Your task to perform on an android device: turn on priority inbox in the gmail app Image 0: 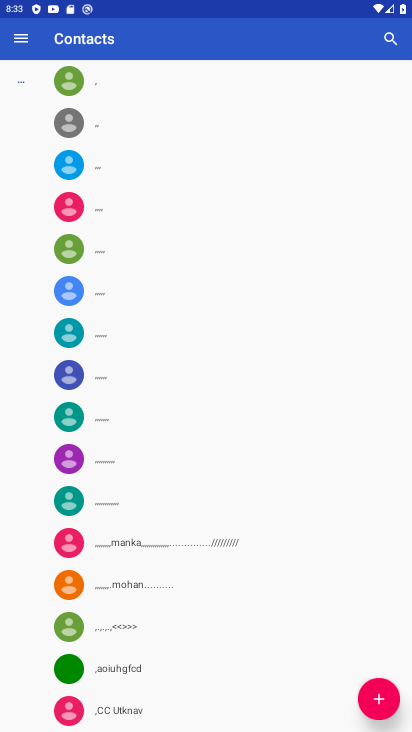
Step 0: press back button
Your task to perform on an android device: turn on priority inbox in the gmail app Image 1: 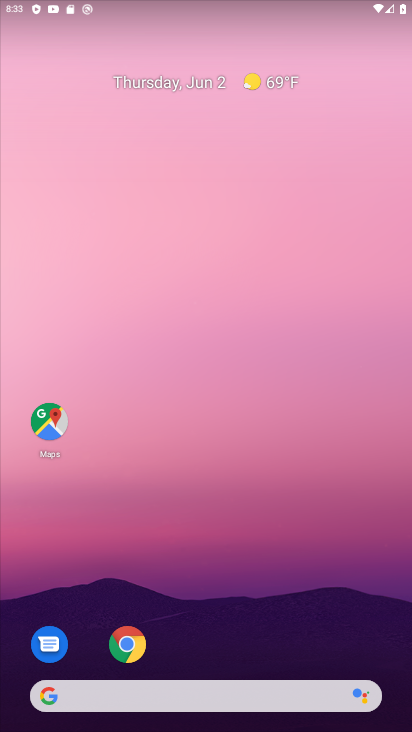
Step 1: drag from (199, 555) to (182, 1)
Your task to perform on an android device: turn on priority inbox in the gmail app Image 2: 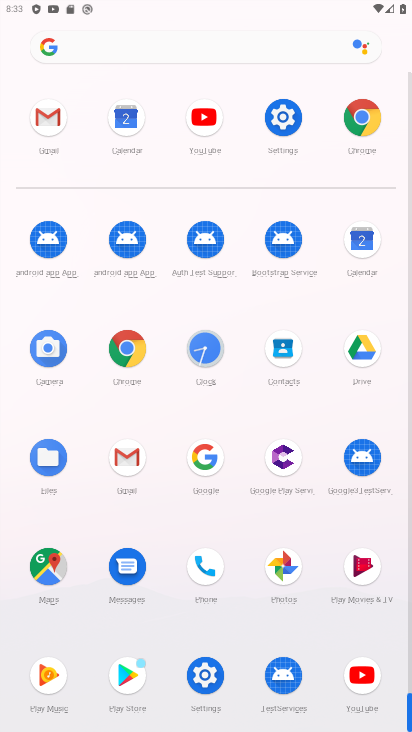
Step 2: click (125, 454)
Your task to perform on an android device: turn on priority inbox in the gmail app Image 3: 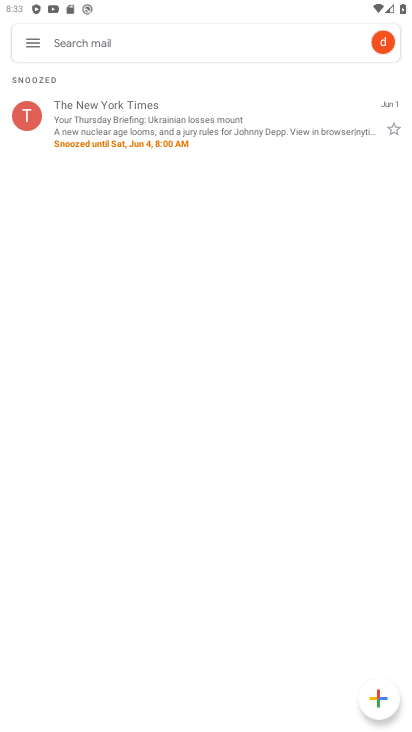
Step 3: click (38, 34)
Your task to perform on an android device: turn on priority inbox in the gmail app Image 4: 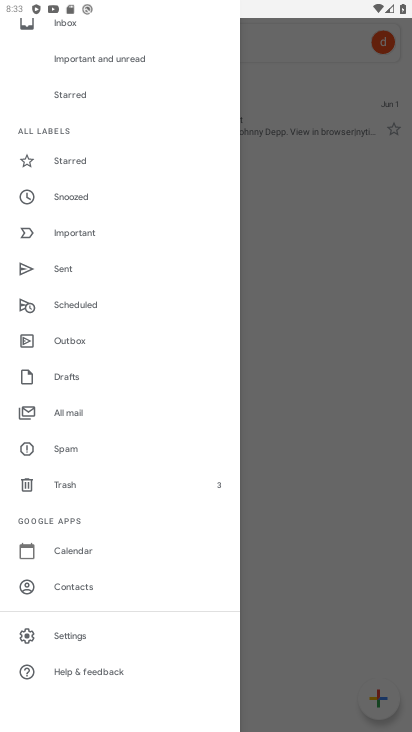
Step 4: click (84, 637)
Your task to perform on an android device: turn on priority inbox in the gmail app Image 5: 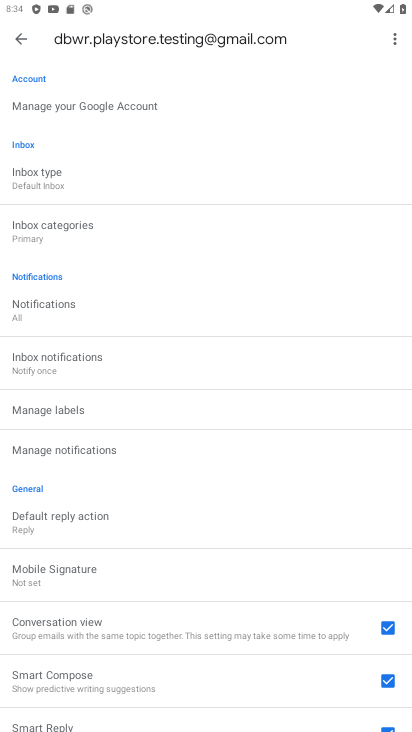
Step 5: task complete